Your task to perform on an android device: turn on airplane mode Image 0: 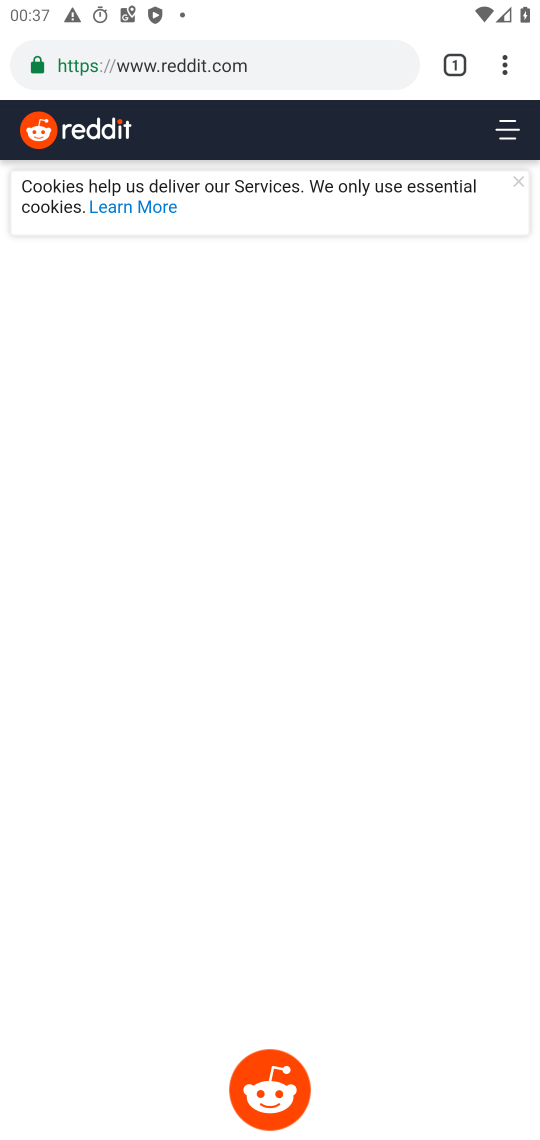
Step 0: press home button
Your task to perform on an android device: turn on airplane mode Image 1: 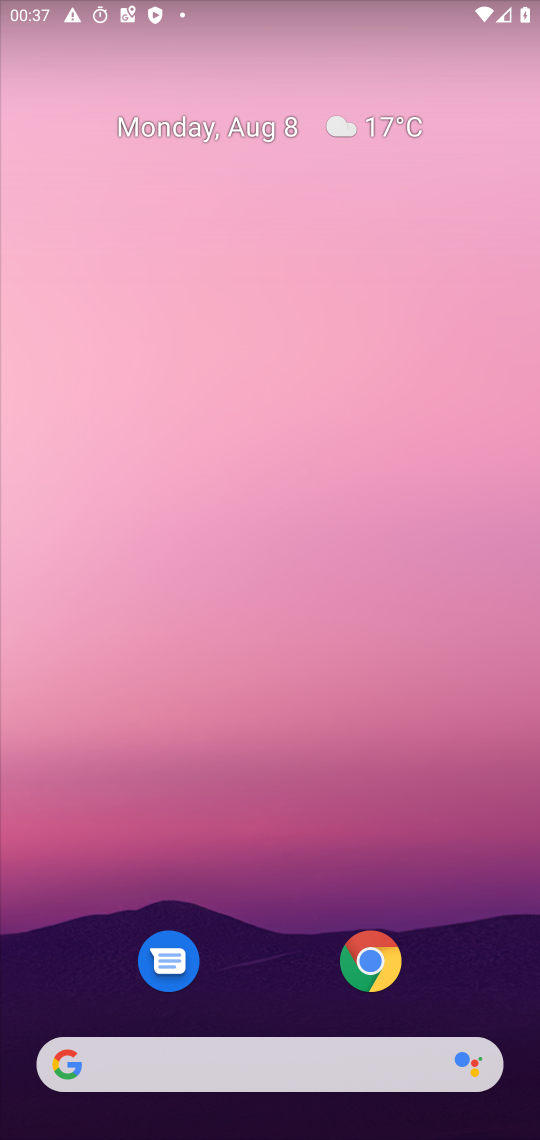
Step 1: drag from (210, 1079) to (198, 15)
Your task to perform on an android device: turn on airplane mode Image 2: 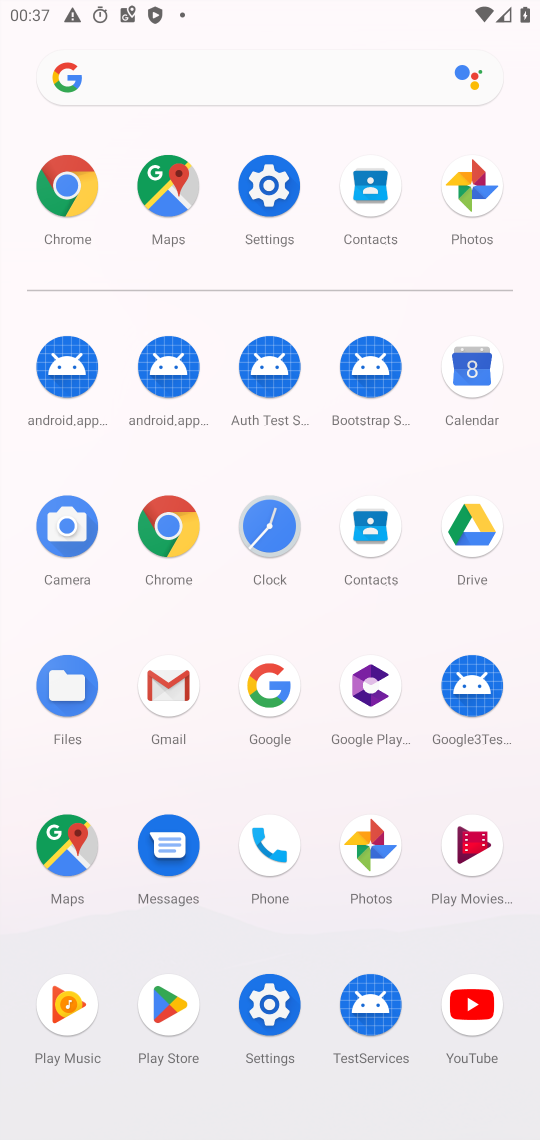
Step 2: click (268, 161)
Your task to perform on an android device: turn on airplane mode Image 3: 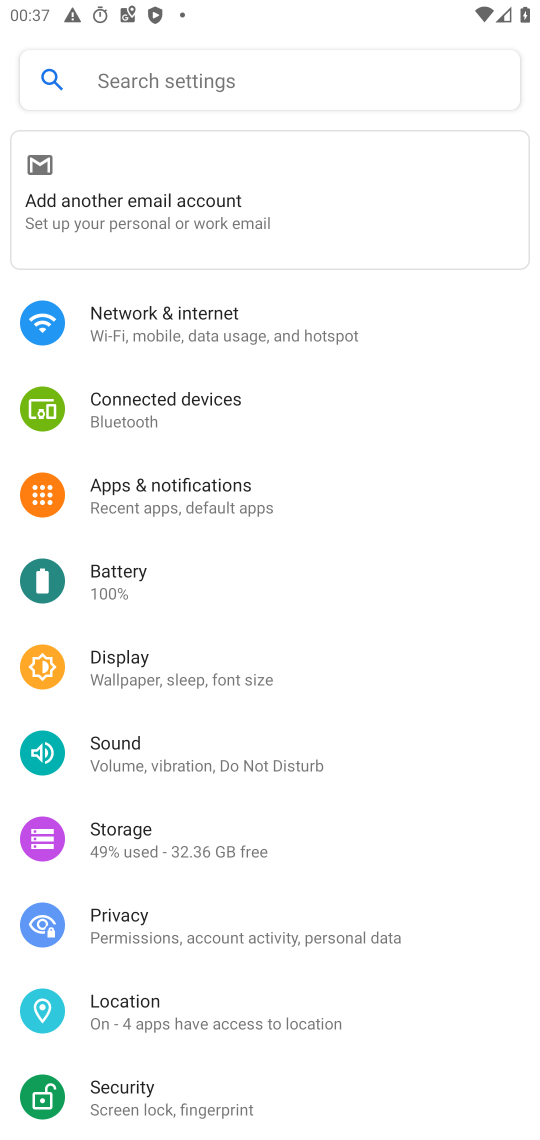
Step 3: click (206, 320)
Your task to perform on an android device: turn on airplane mode Image 4: 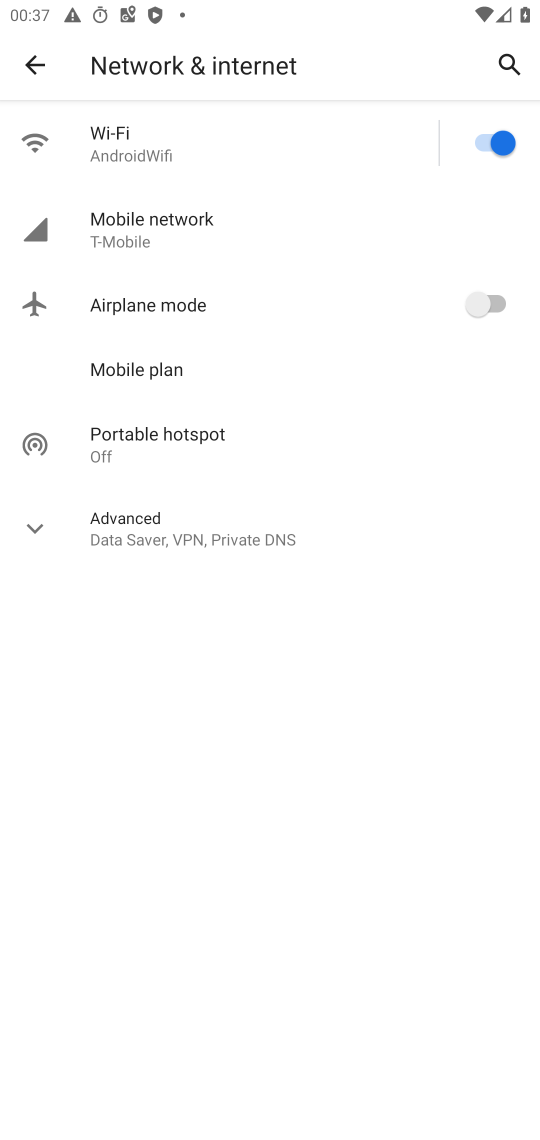
Step 4: click (492, 293)
Your task to perform on an android device: turn on airplane mode Image 5: 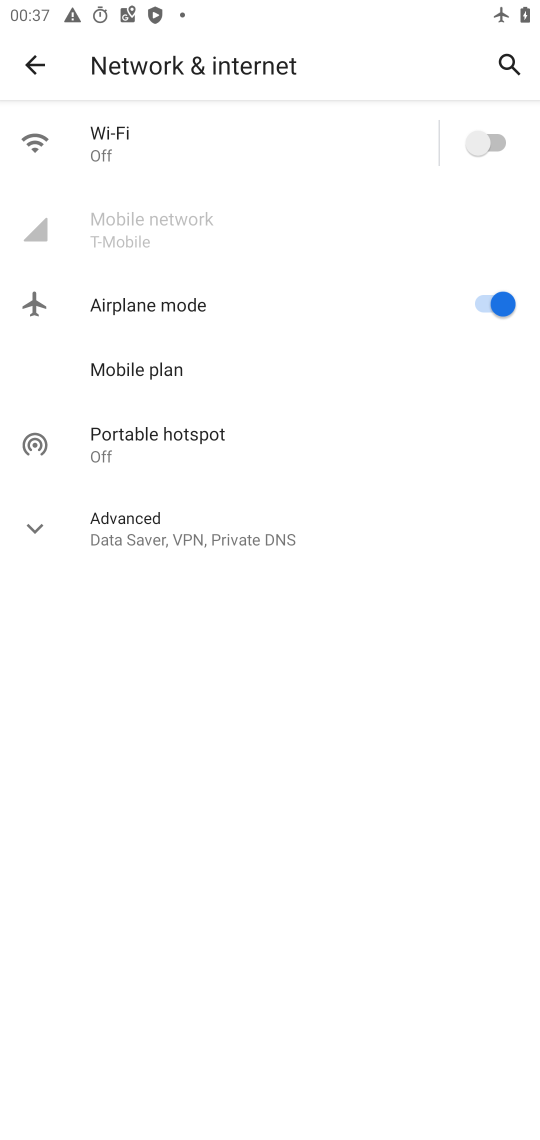
Step 5: task complete